Your task to perform on an android device: toggle data saver in the chrome app Image 0: 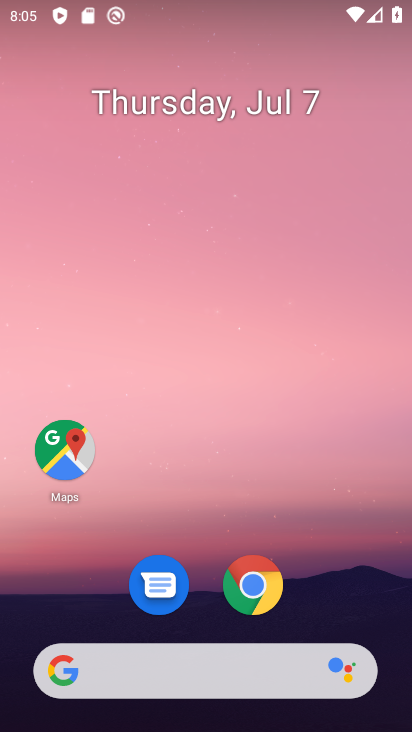
Step 0: drag from (324, 568) to (324, 71)
Your task to perform on an android device: toggle data saver in the chrome app Image 1: 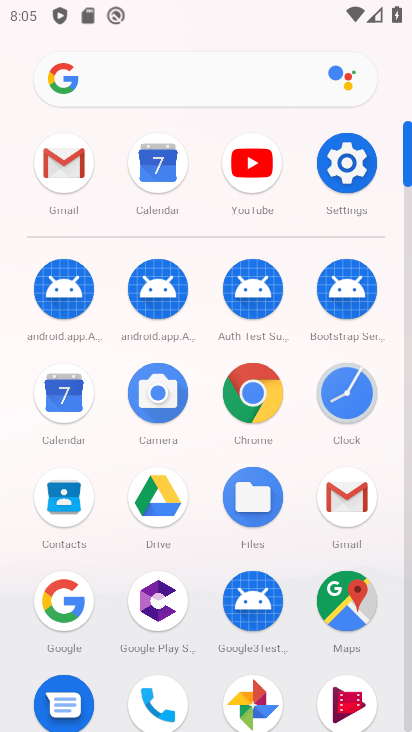
Step 1: click (268, 402)
Your task to perform on an android device: toggle data saver in the chrome app Image 2: 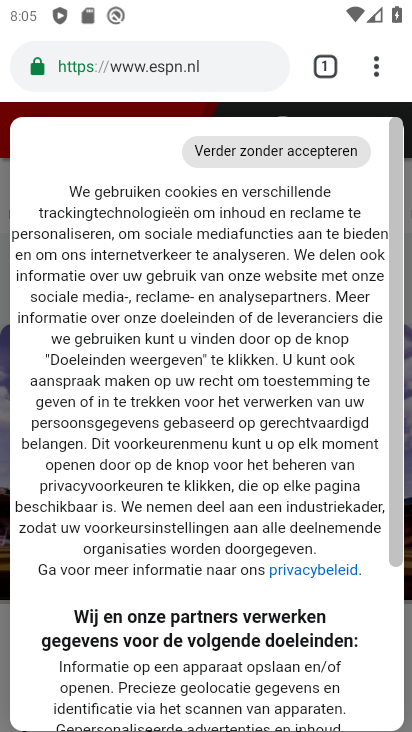
Step 2: click (376, 76)
Your task to perform on an android device: toggle data saver in the chrome app Image 3: 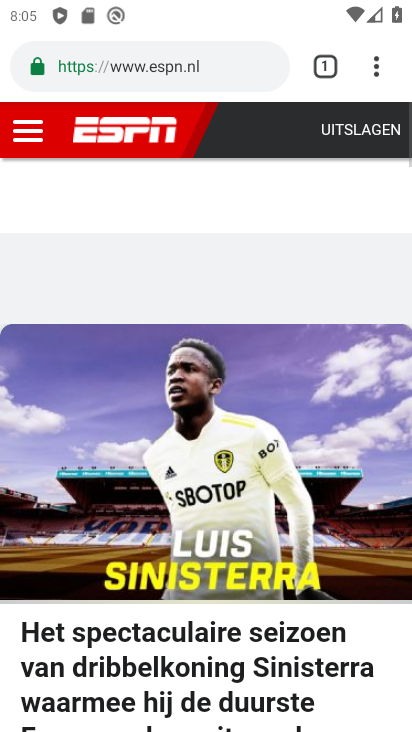
Step 3: click (376, 78)
Your task to perform on an android device: toggle data saver in the chrome app Image 4: 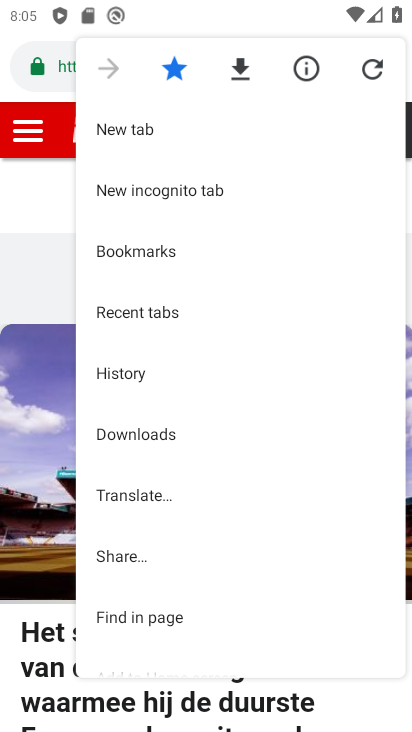
Step 4: drag from (206, 575) to (230, 203)
Your task to perform on an android device: toggle data saver in the chrome app Image 5: 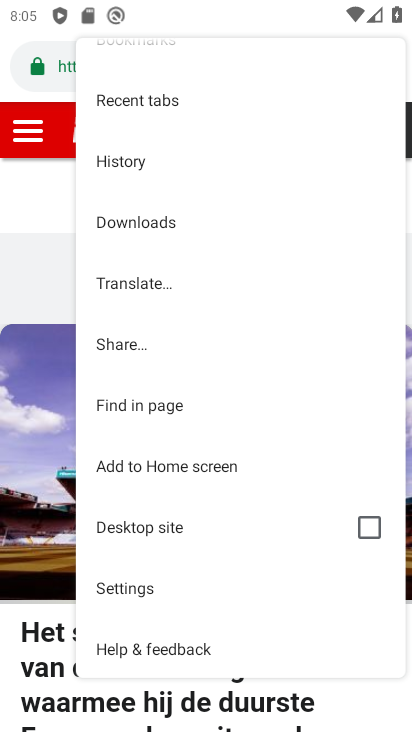
Step 5: click (145, 589)
Your task to perform on an android device: toggle data saver in the chrome app Image 6: 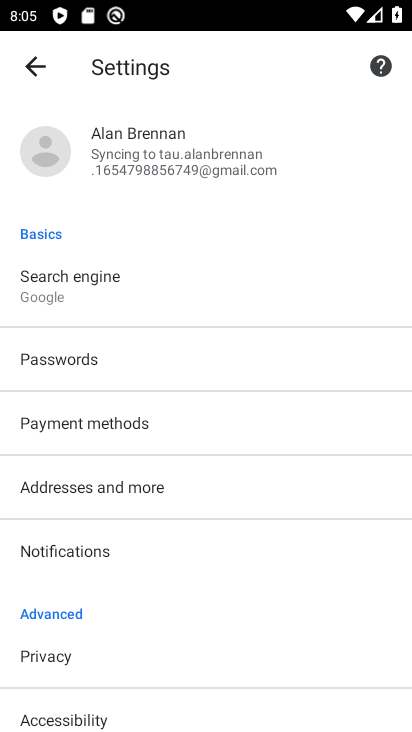
Step 6: drag from (262, 586) to (271, 140)
Your task to perform on an android device: toggle data saver in the chrome app Image 7: 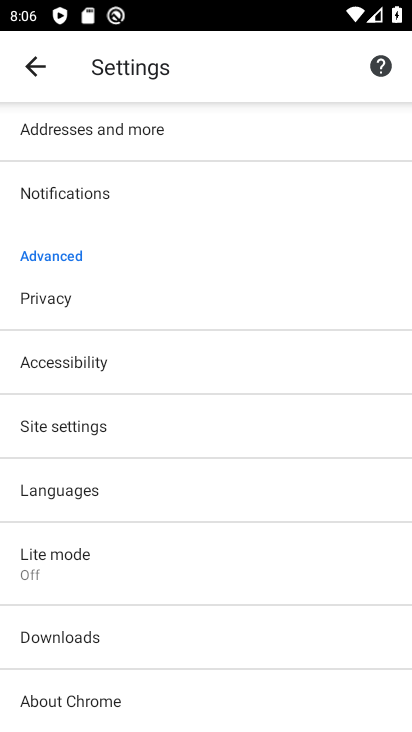
Step 7: click (81, 554)
Your task to perform on an android device: toggle data saver in the chrome app Image 8: 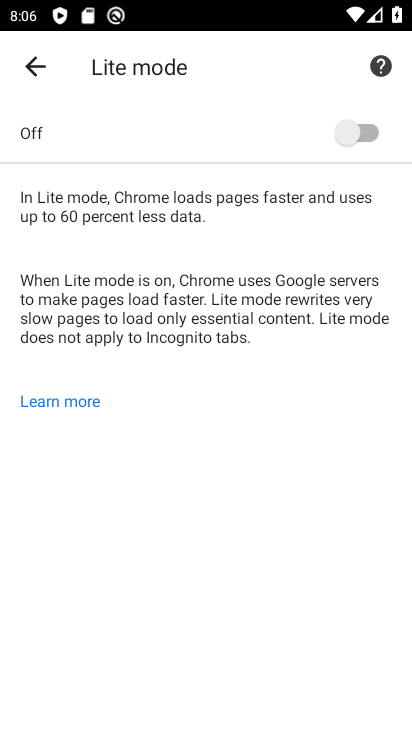
Step 8: click (366, 134)
Your task to perform on an android device: toggle data saver in the chrome app Image 9: 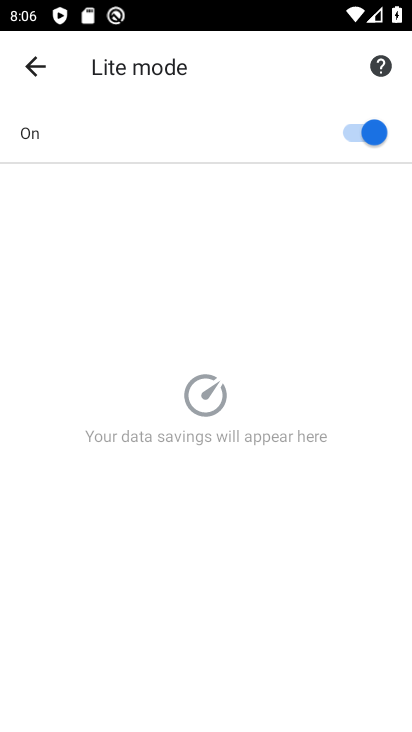
Step 9: task complete